Your task to perform on an android device: Find coffee shops on Maps Image 0: 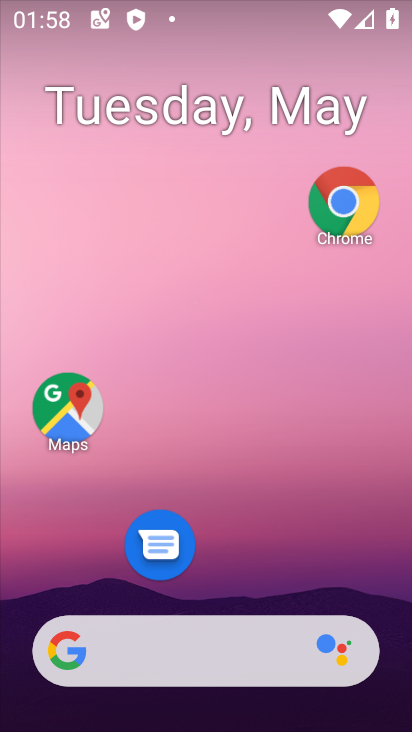
Step 0: click (64, 398)
Your task to perform on an android device: Find coffee shops on Maps Image 1: 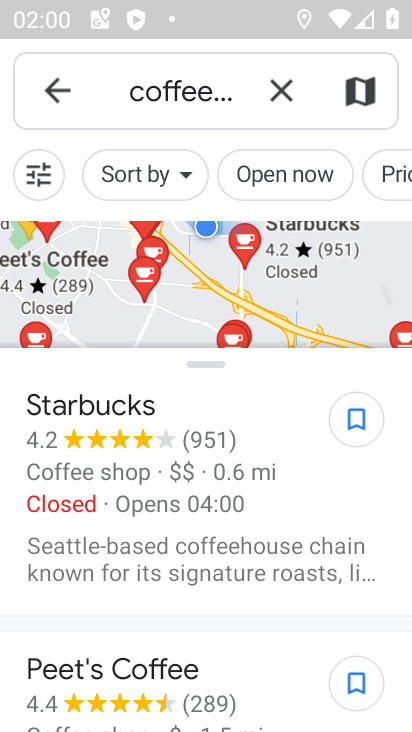
Step 1: task complete